Your task to perform on an android device: toggle wifi Image 0: 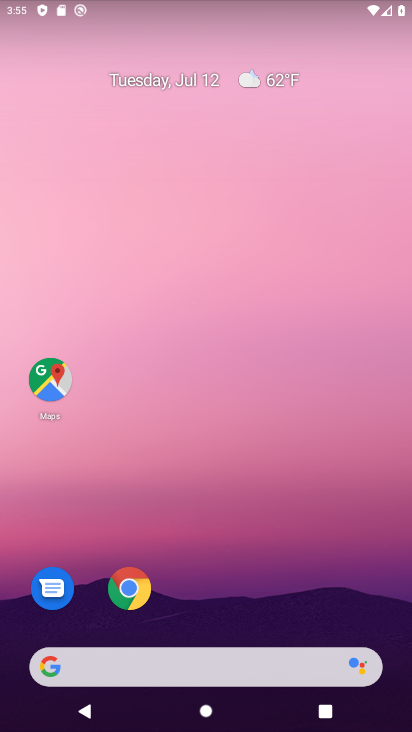
Step 0: drag from (366, 5) to (390, 76)
Your task to perform on an android device: toggle wifi Image 1: 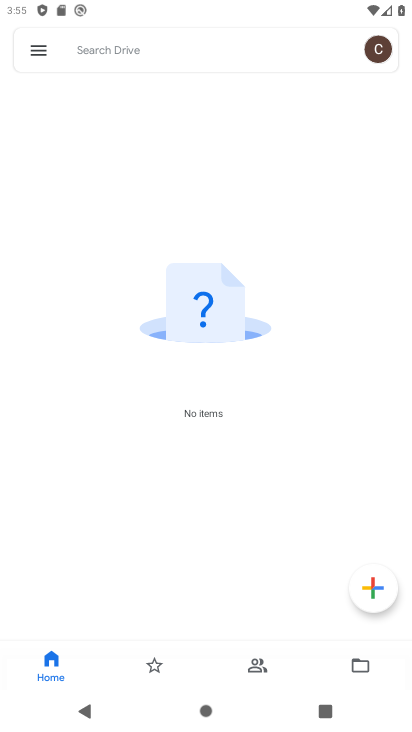
Step 1: press home button
Your task to perform on an android device: toggle wifi Image 2: 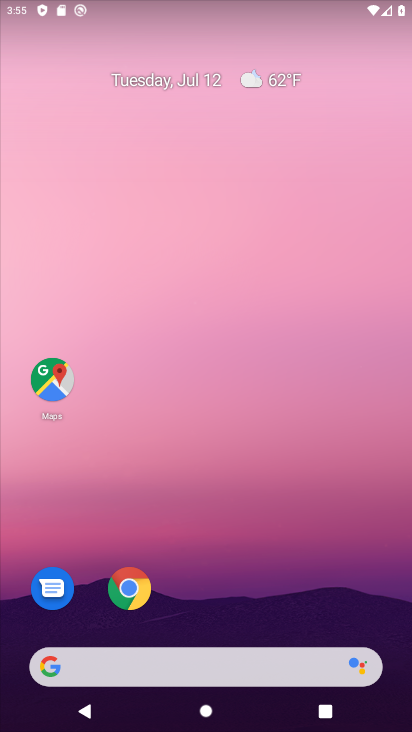
Step 2: drag from (337, 610) to (265, 57)
Your task to perform on an android device: toggle wifi Image 3: 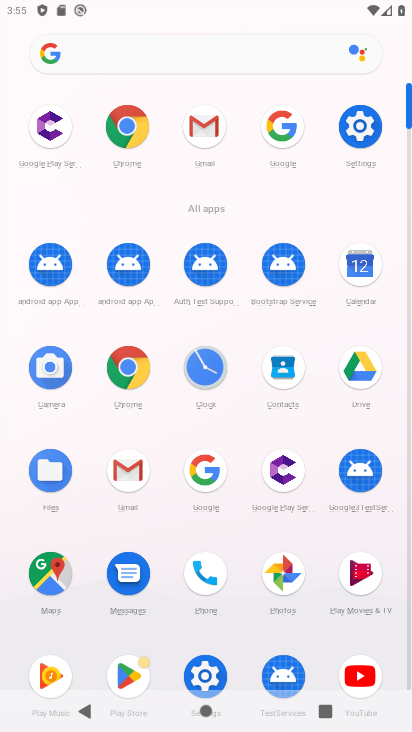
Step 3: click (370, 126)
Your task to perform on an android device: toggle wifi Image 4: 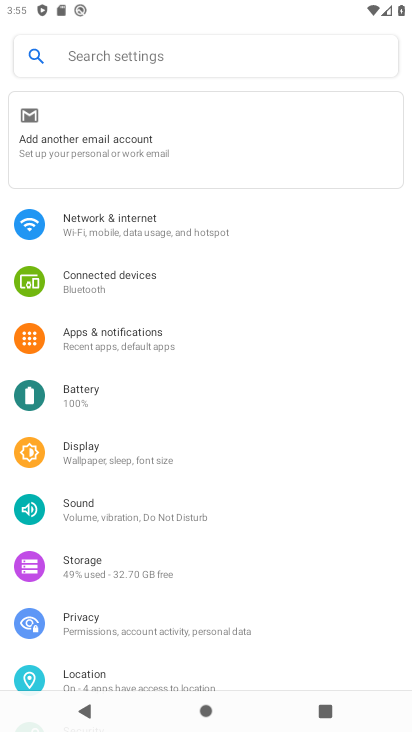
Step 4: click (177, 225)
Your task to perform on an android device: toggle wifi Image 5: 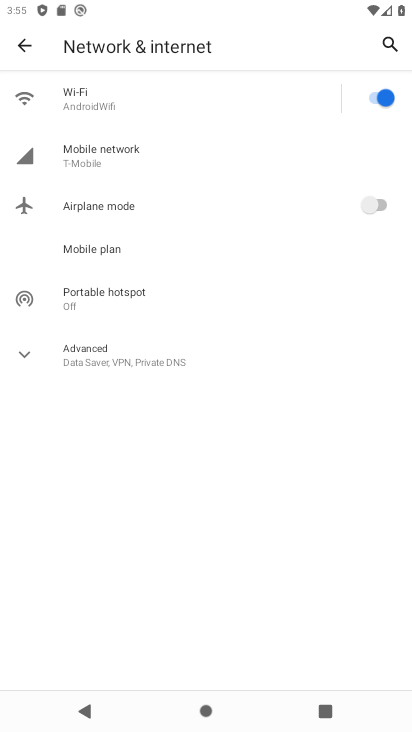
Step 5: click (374, 98)
Your task to perform on an android device: toggle wifi Image 6: 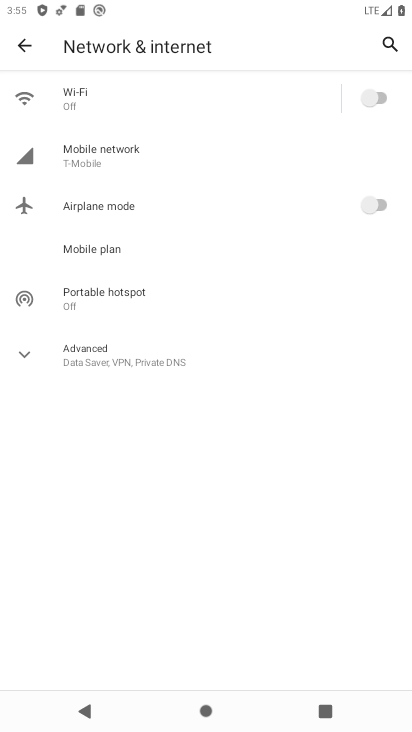
Step 6: task complete